Your task to perform on an android device: turn on airplane mode Image 0: 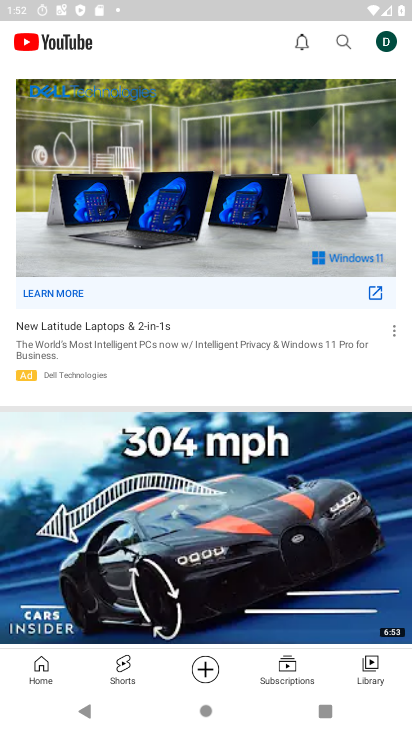
Step 0: press home button
Your task to perform on an android device: turn on airplane mode Image 1: 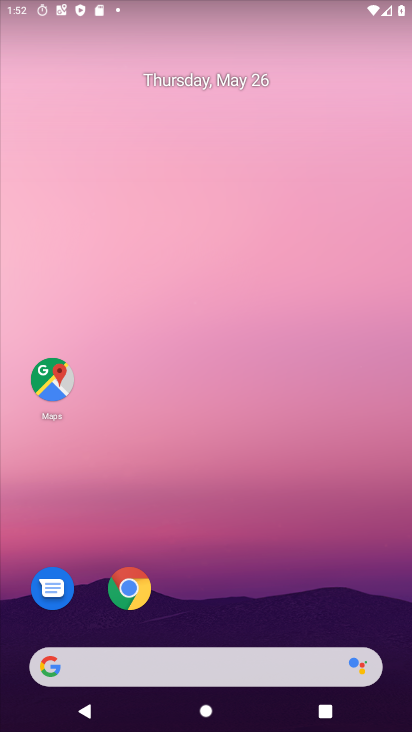
Step 1: drag from (399, 706) to (374, 212)
Your task to perform on an android device: turn on airplane mode Image 2: 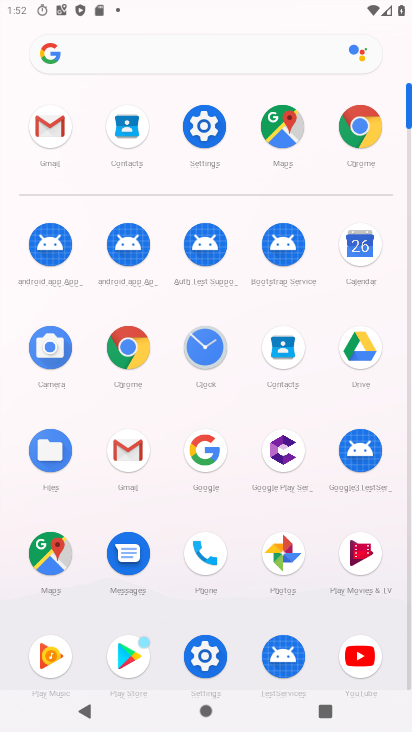
Step 2: click (213, 131)
Your task to perform on an android device: turn on airplane mode Image 3: 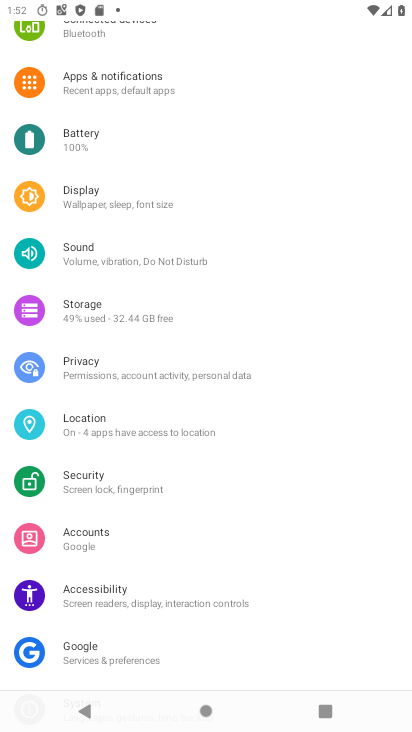
Step 3: drag from (337, 79) to (379, 572)
Your task to perform on an android device: turn on airplane mode Image 4: 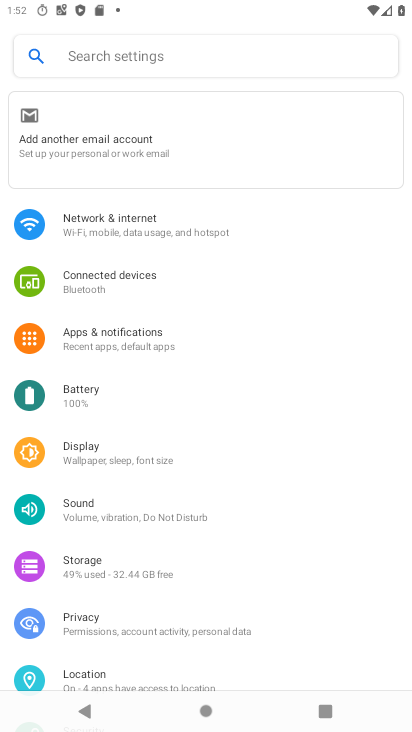
Step 4: click (91, 230)
Your task to perform on an android device: turn on airplane mode Image 5: 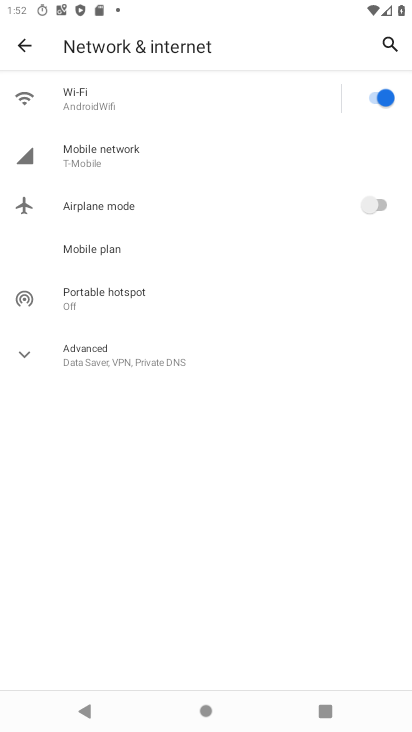
Step 5: click (380, 207)
Your task to perform on an android device: turn on airplane mode Image 6: 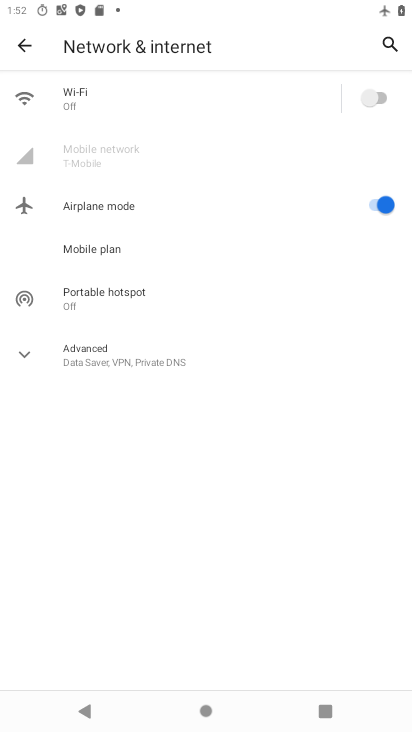
Step 6: task complete